Your task to perform on an android device: Show me popular games on the Play Store Image 0: 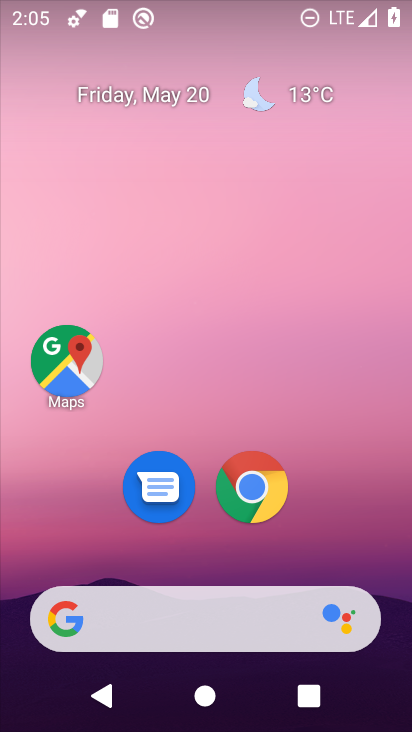
Step 0: drag from (202, 561) to (267, 109)
Your task to perform on an android device: Show me popular games on the Play Store Image 1: 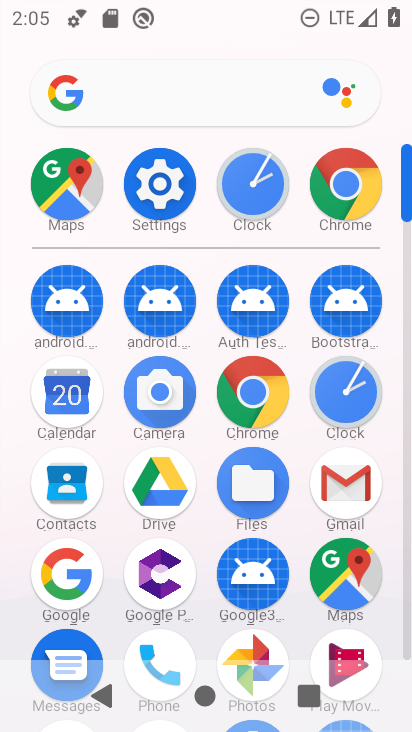
Step 1: drag from (202, 617) to (195, 238)
Your task to perform on an android device: Show me popular games on the Play Store Image 2: 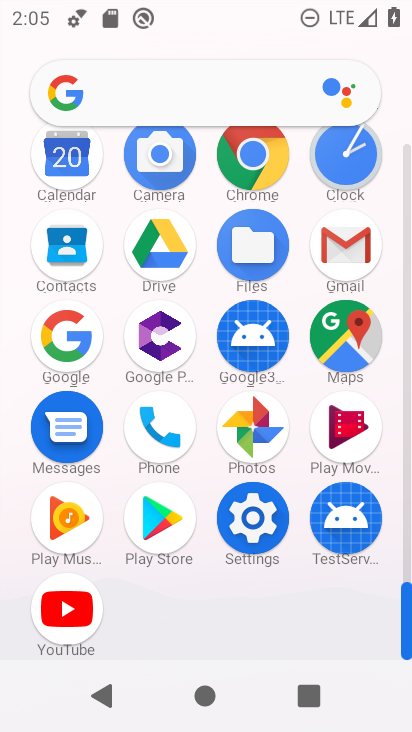
Step 2: click (149, 514)
Your task to perform on an android device: Show me popular games on the Play Store Image 3: 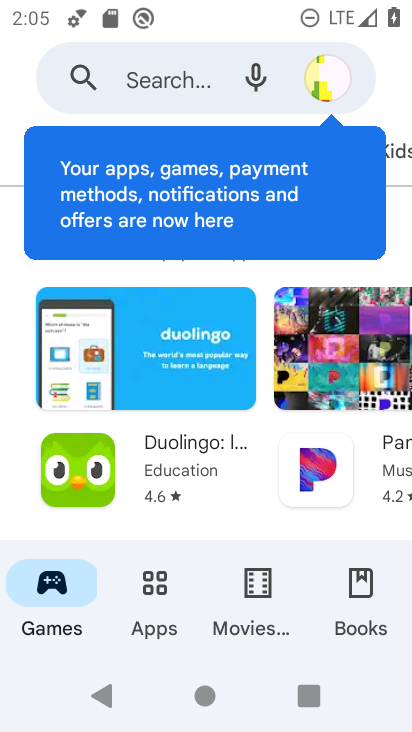
Step 3: drag from (228, 502) to (232, 253)
Your task to perform on an android device: Show me popular games on the Play Store Image 4: 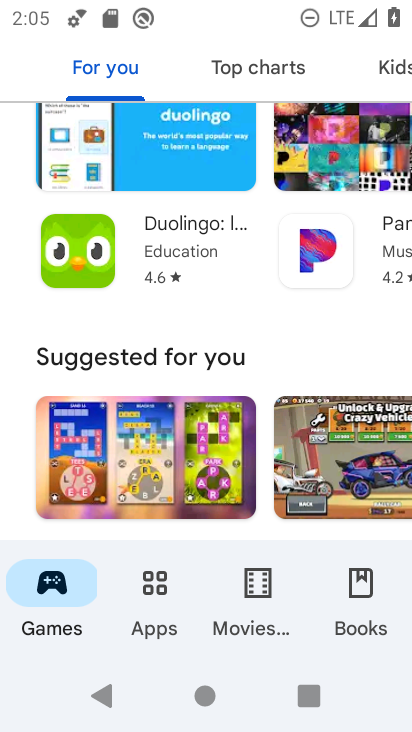
Step 4: drag from (263, 514) to (255, 291)
Your task to perform on an android device: Show me popular games on the Play Store Image 5: 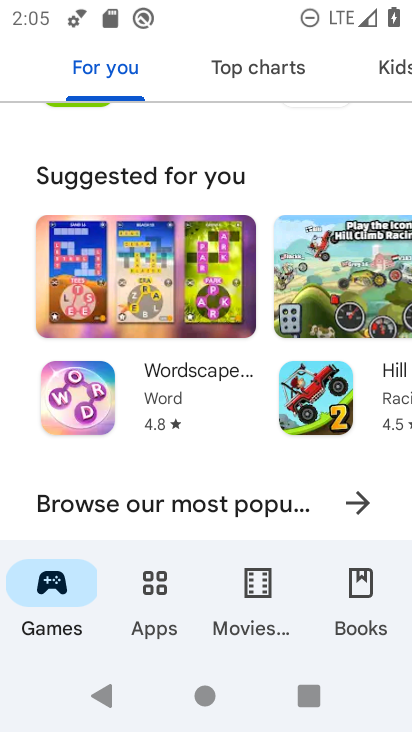
Step 5: click (361, 504)
Your task to perform on an android device: Show me popular games on the Play Store Image 6: 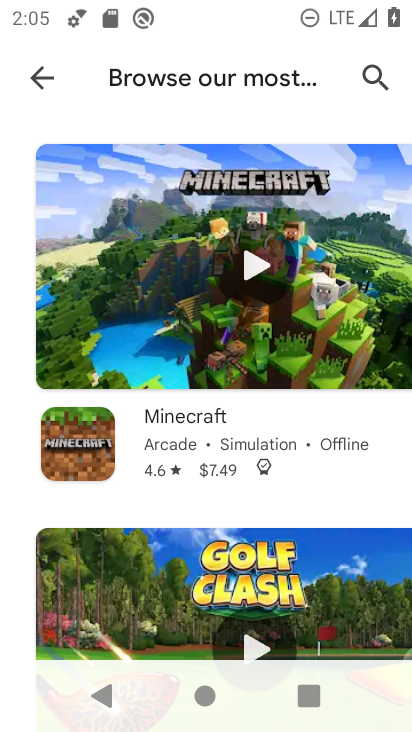
Step 6: task complete